Your task to perform on an android device: Go to battery settings Image 0: 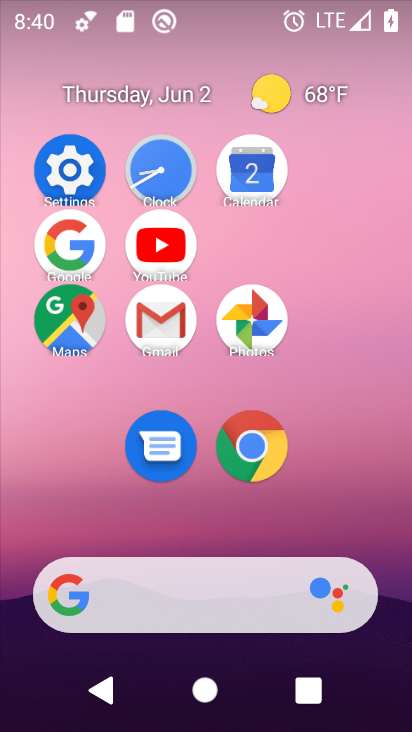
Step 0: click (85, 153)
Your task to perform on an android device: Go to battery settings Image 1: 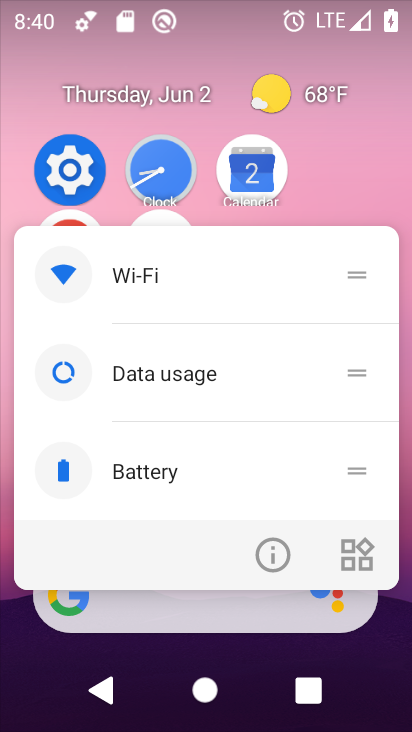
Step 1: click (83, 164)
Your task to perform on an android device: Go to battery settings Image 2: 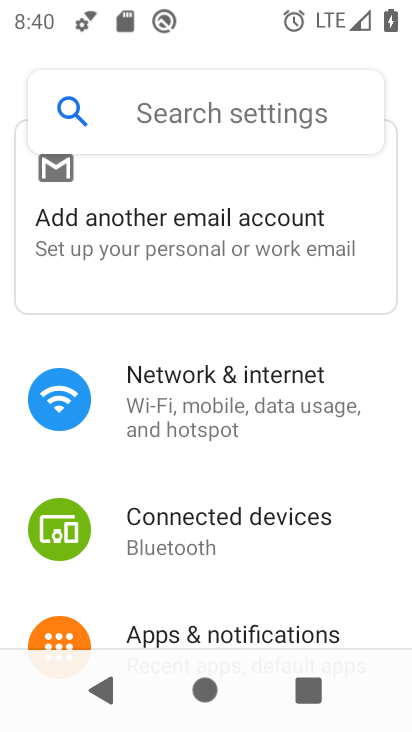
Step 2: drag from (320, 495) to (304, 69)
Your task to perform on an android device: Go to battery settings Image 3: 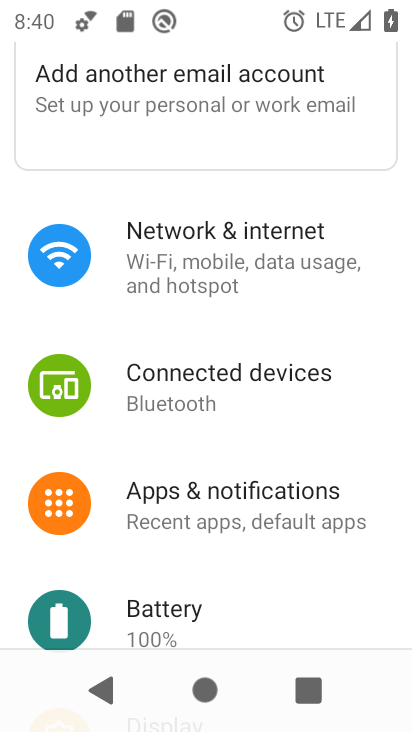
Step 3: click (234, 619)
Your task to perform on an android device: Go to battery settings Image 4: 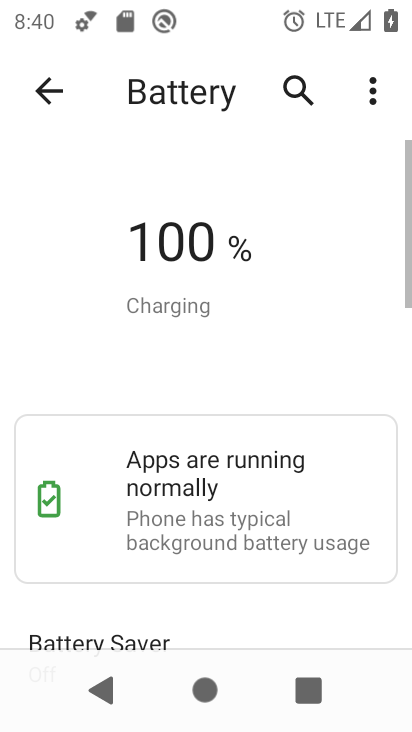
Step 4: task complete